Your task to perform on an android device: Open Chrome and go to settings Image 0: 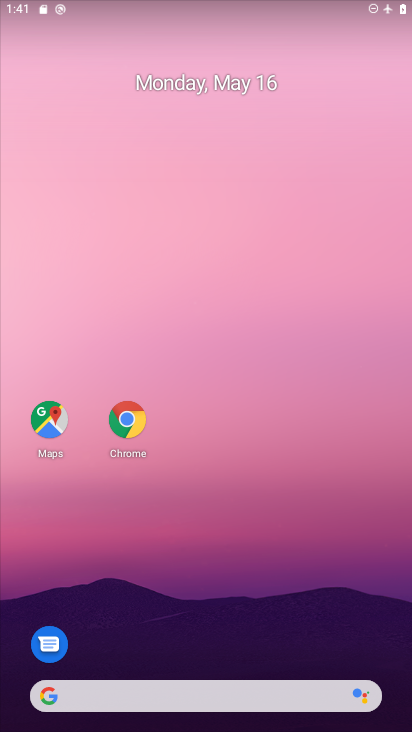
Step 0: drag from (172, 646) to (279, 182)
Your task to perform on an android device: Open Chrome and go to settings Image 1: 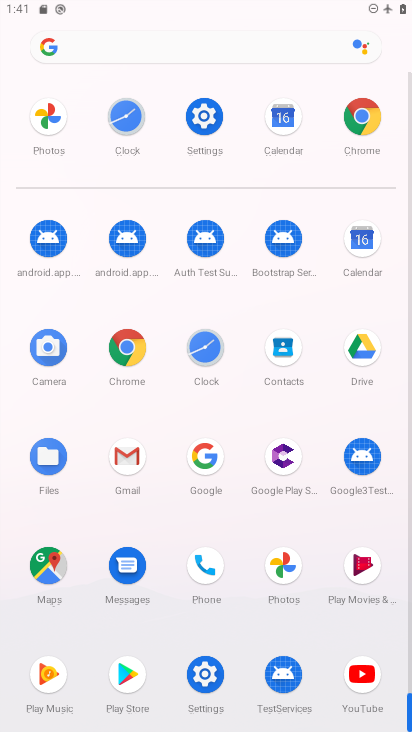
Step 1: click (121, 348)
Your task to perform on an android device: Open Chrome and go to settings Image 2: 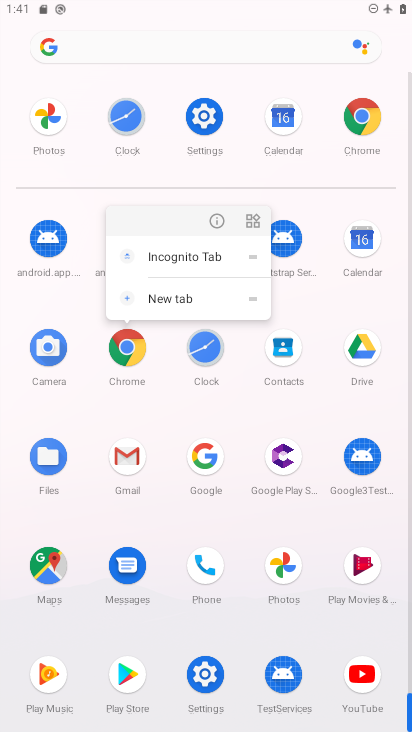
Step 2: click (216, 222)
Your task to perform on an android device: Open Chrome and go to settings Image 3: 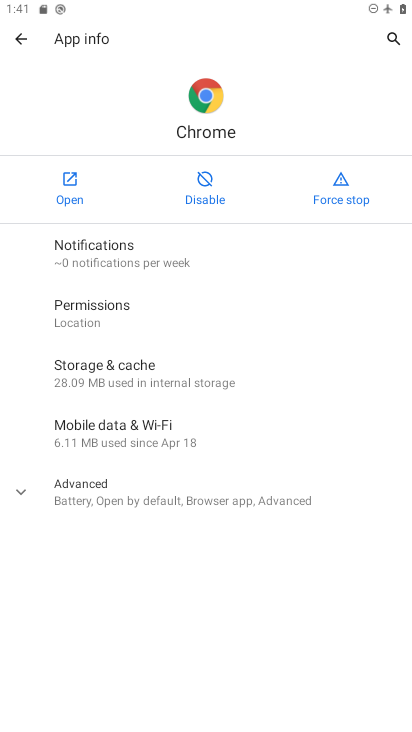
Step 3: click (67, 186)
Your task to perform on an android device: Open Chrome and go to settings Image 4: 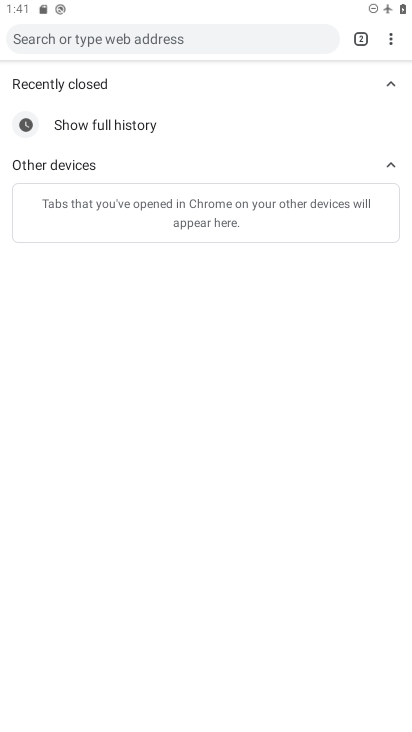
Step 4: task complete